Your task to perform on an android device: turn notification dots on Image 0: 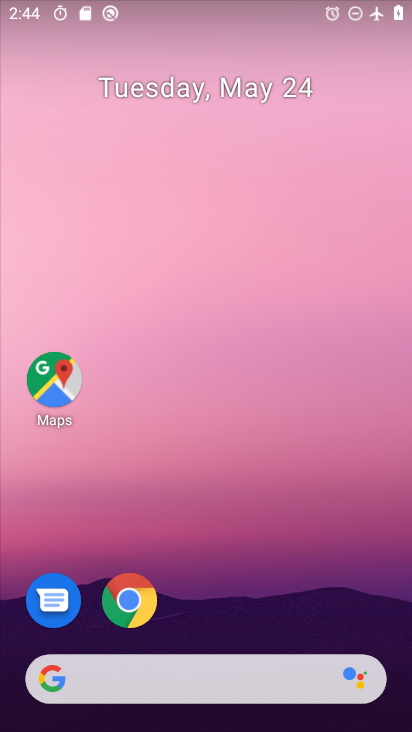
Step 0: drag from (258, 551) to (264, 140)
Your task to perform on an android device: turn notification dots on Image 1: 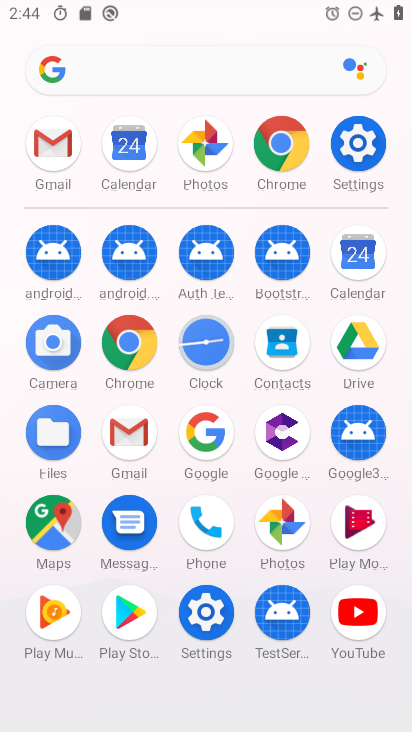
Step 1: click (379, 149)
Your task to perform on an android device: turn notification dots on Image 2: 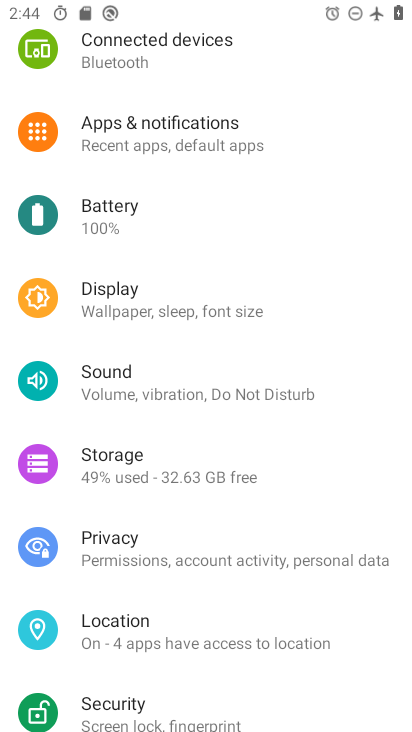
Step 2: click (156, 143)
Your task to perform on an android device: turn notification dots on Image 3: 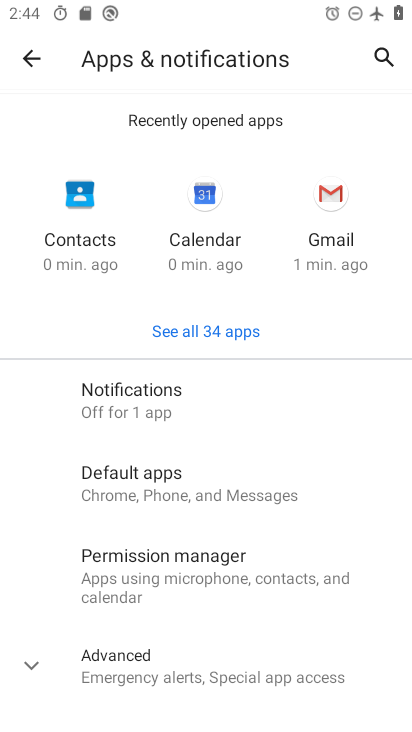
Step 3: click (164, 404)
Your task to perform on an android device: turn notification dots on Image 4: 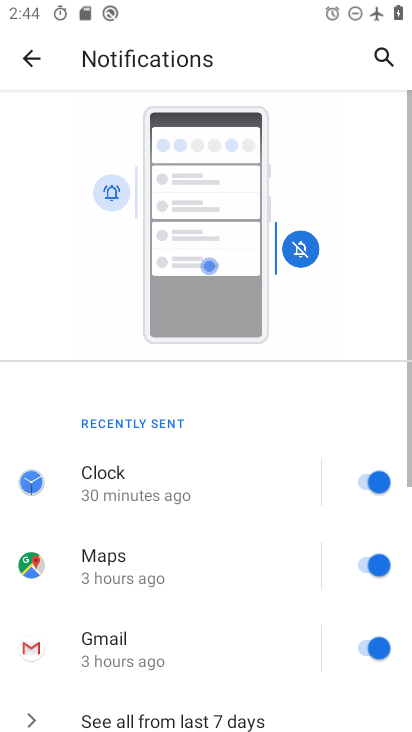
Step 4: drag from (226, 578) to (239, 91)
Your task to perform on an android device: turn notification dots on Image 5: 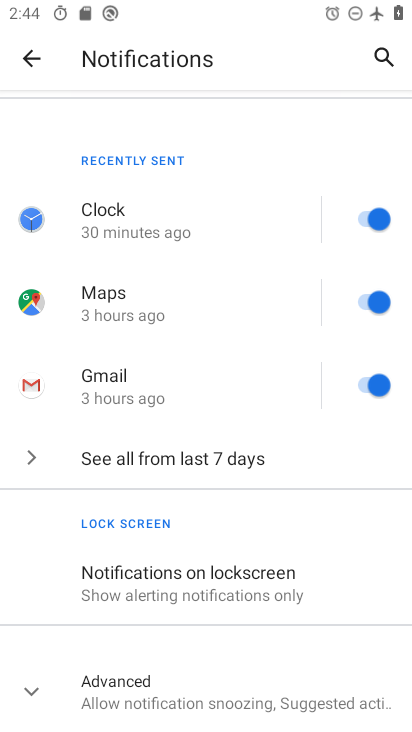
Step 5: click (238, 706)
Your task to perform on an android device: turn notification dots on Image 6: 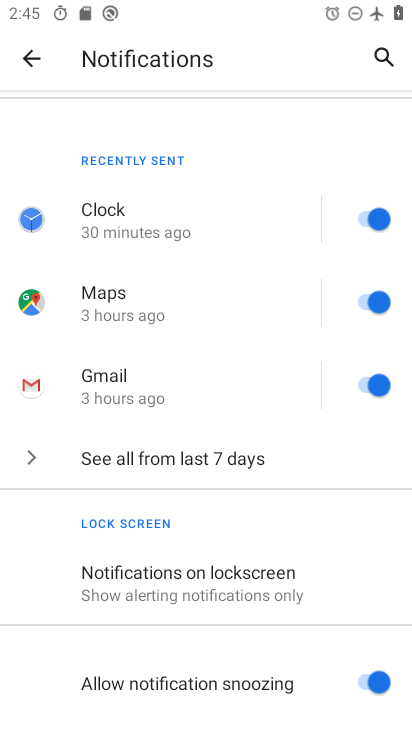
Step 6: task complete